Your task to perform on an android device: turn off wifi Image 0: 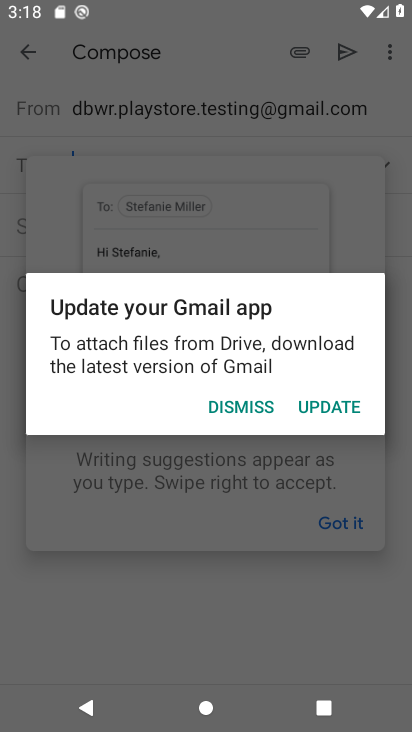
Step 0: press home button
Your task to perform on an android device: turn off wifi Image 1: 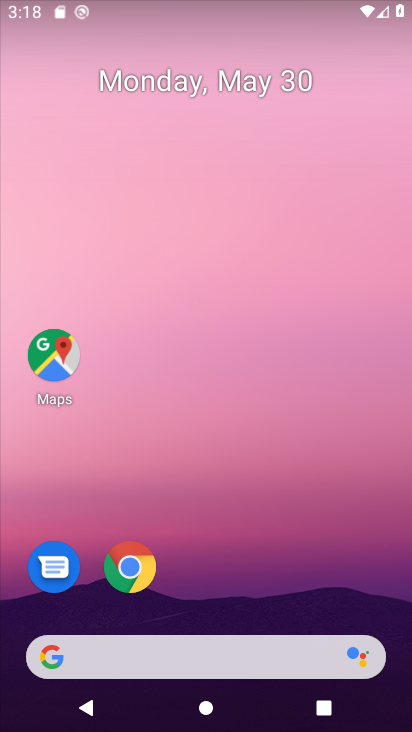
Step 1: drag from (228, 477) to (242, 0)
Your task to perform on an android device: turn off wifi Image 2: 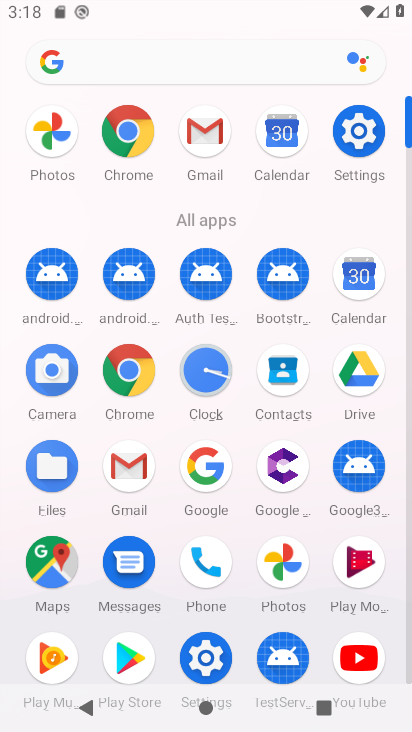
Step 2: click (348, 130)
Your task to perform on an android device: turn off wifi Image 3: 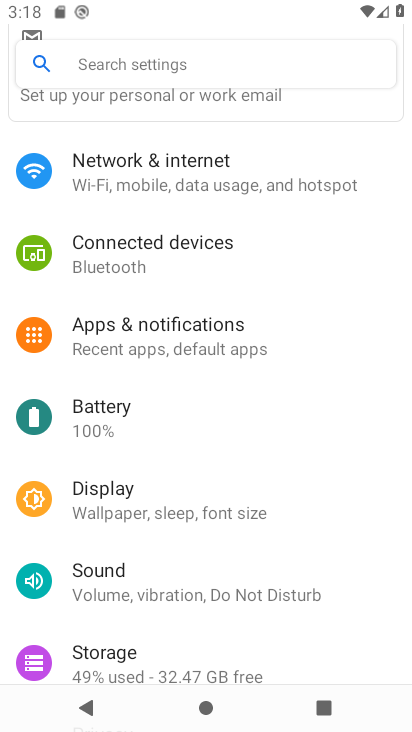
Step 3: click (223, 166)
Your task to perform on an android device: turn off wifi Image 4: 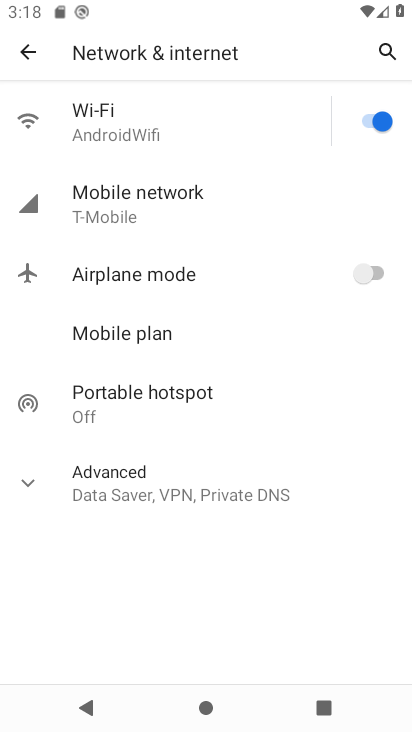
Step 4: click (373, 119)
Your task to perform on an android device: turn off wifi Image 5: 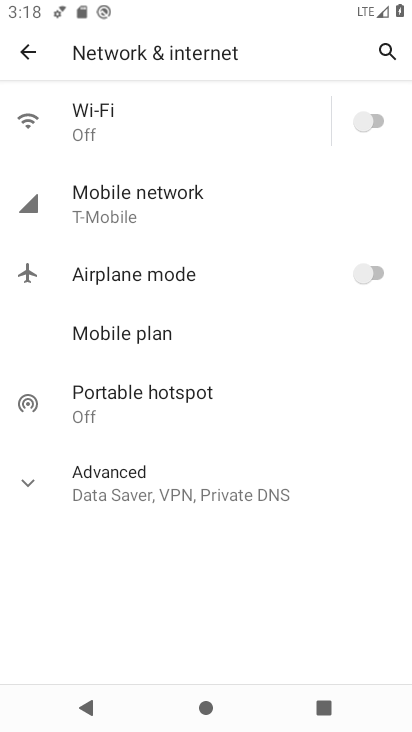
Step 5: task complete